Your task to perform on an android device: Open settings on Google Maps Image 0: 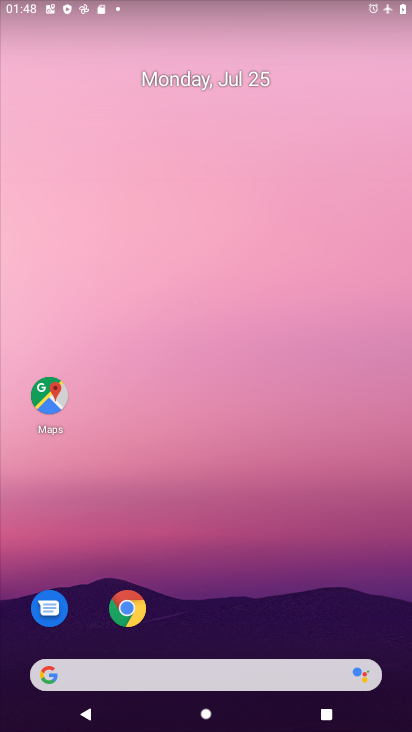
Step 0: click (47, 388)
Your task to perform on an android device: Open settings on Google Maps Image 1: 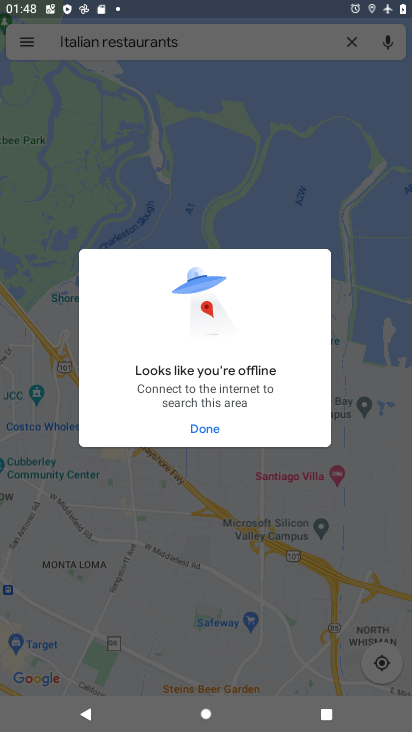
Step 1: click (207, 425)
Your task to perform on an android device: Open settings on Google Maps Image 2: 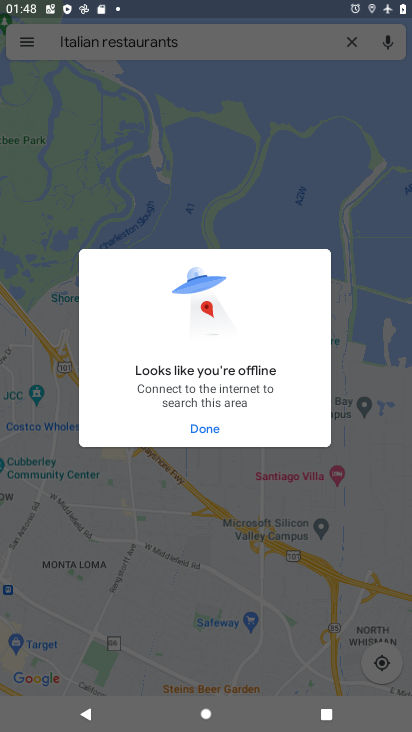
Step 2: click (21, 43)
Your task to perform on an android device: Open settings on Google Maps Image 3: 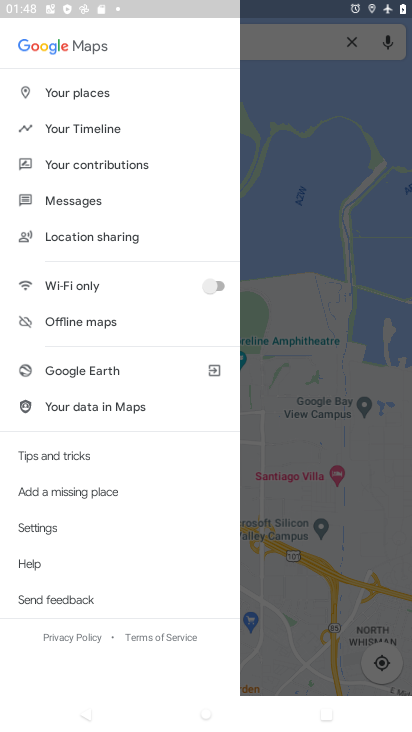
Step 3: click (58, 531)
Your task to perform on an android device: Open settings on Google Maps Image 4: 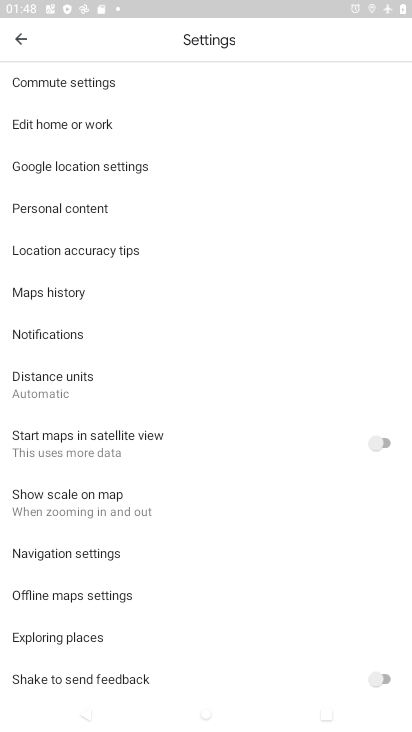
Step 4: task complete